Your task to perform on an android device: Open Google Chrome and click the shortcut for Amazon.com Image 0: 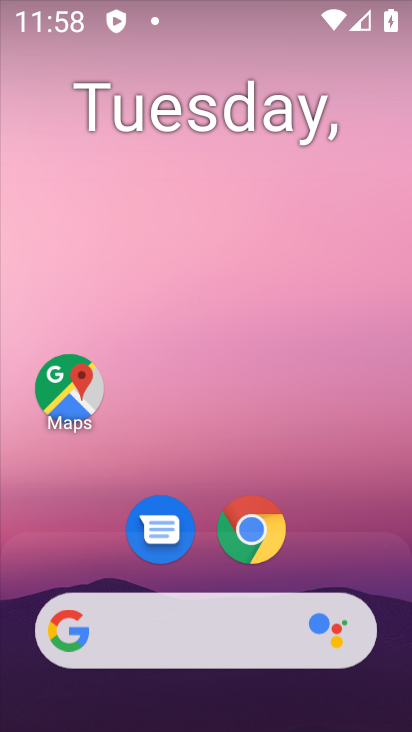
Step 0: drag from (200, 593) to (293, 14)
Your task to perform on an android device: Open Google Chrome and click the shortcut for Amazon.com Image 1: 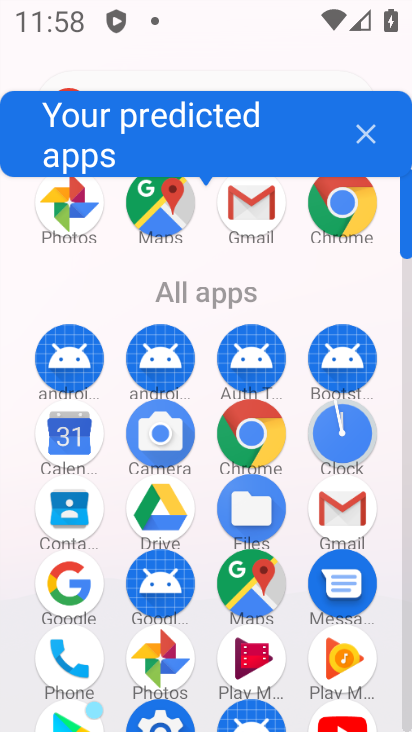
Step 1: click (262, 434)
Your task to perform on an android device: Open Google Chrome and click the shortcut for Amazon.com Image 2: 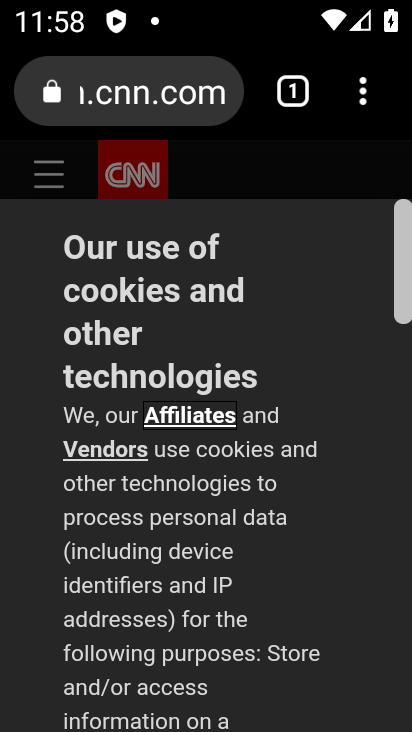
Step 2: press back button
Your task to perform on an android device: Open Google Chrome and click the shortcut for Amazon.com Image 3: 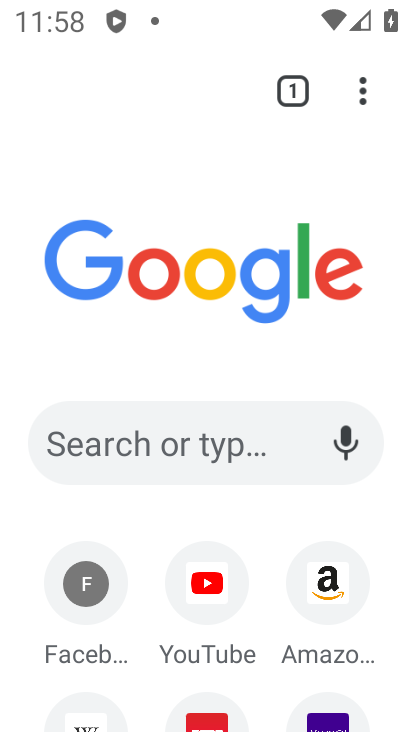
Step 3: press home button
Your task to perform on an android device: Open Google Chrome and click the shortcut for Amazon.com Image 4: 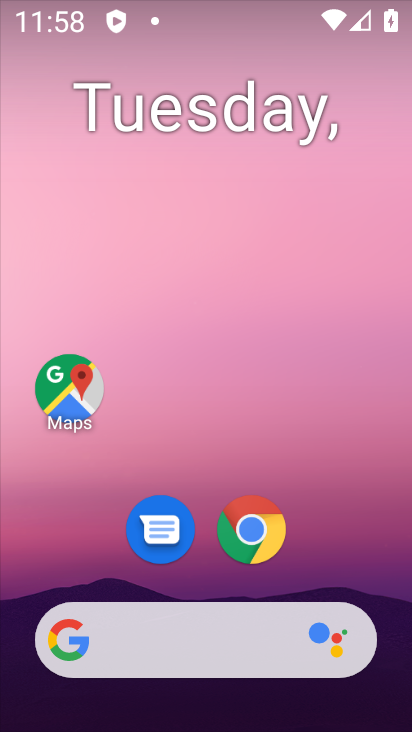
Step 4: click (268, 530)
Your task to perform on an android device: Open Google Chrome and click the shortcut for Amazon.com Image 5: 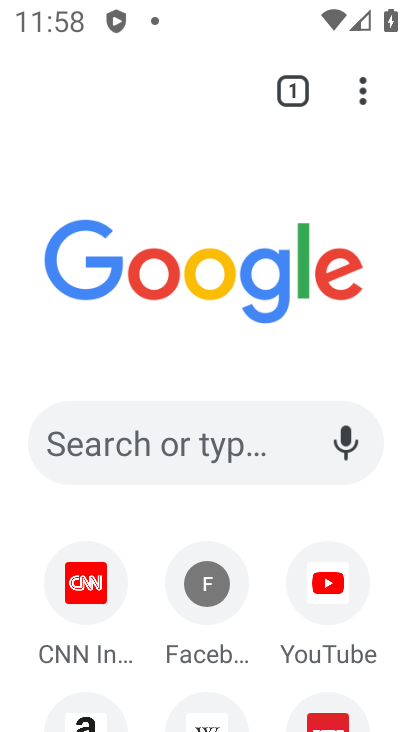
Step 5: click (75, 710)
Your task to perform on an android device: Open Google Chrome and click the shortcut for Amazon.com Image 6: 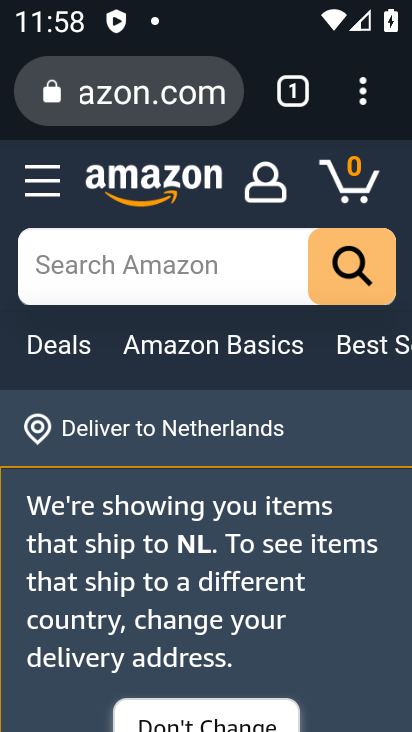
Step 6: task complete